Your task to perform on an android device: turn on wifi Image 0: 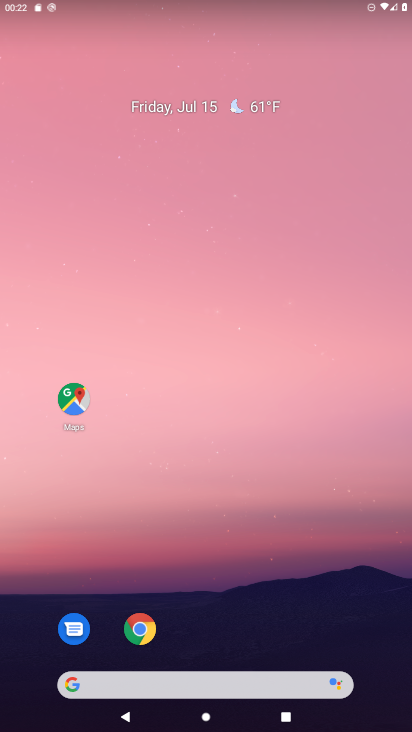
Step 0: drag from (218, 8) to (254, 514)
Your task to perform on an android device: turn on wifi Image 1: 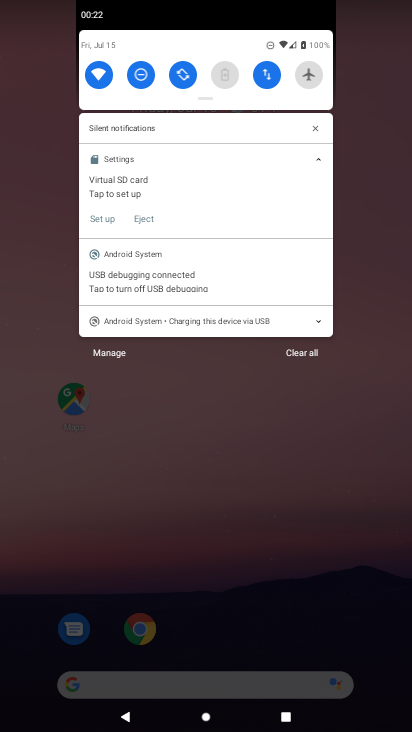
Step 1: task complete